Your task to perform on an android device: Go to internet settings Image 0: 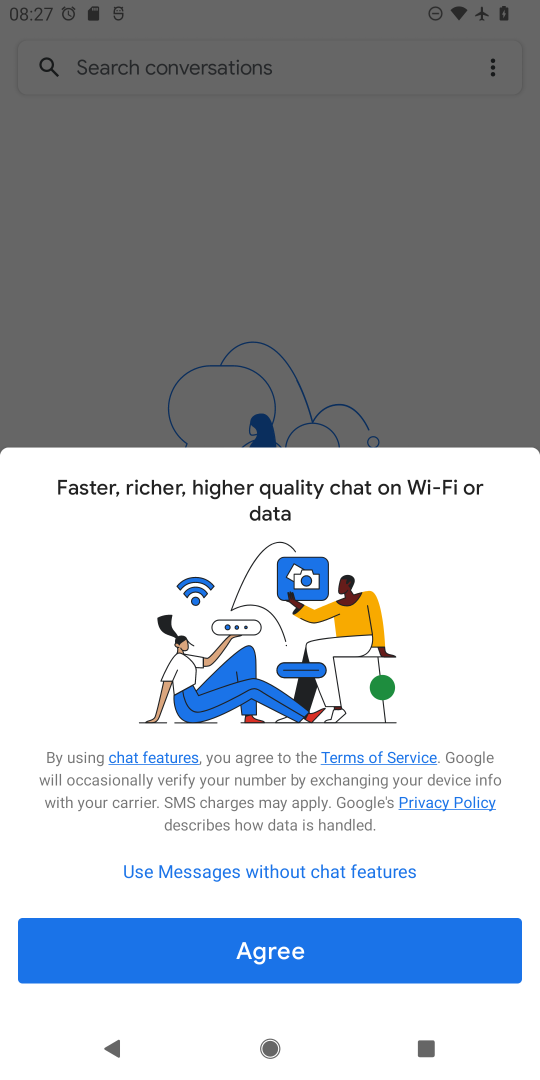
Step 0: press home button
Your task to perform on an android device: Go to internet settings Image 1: 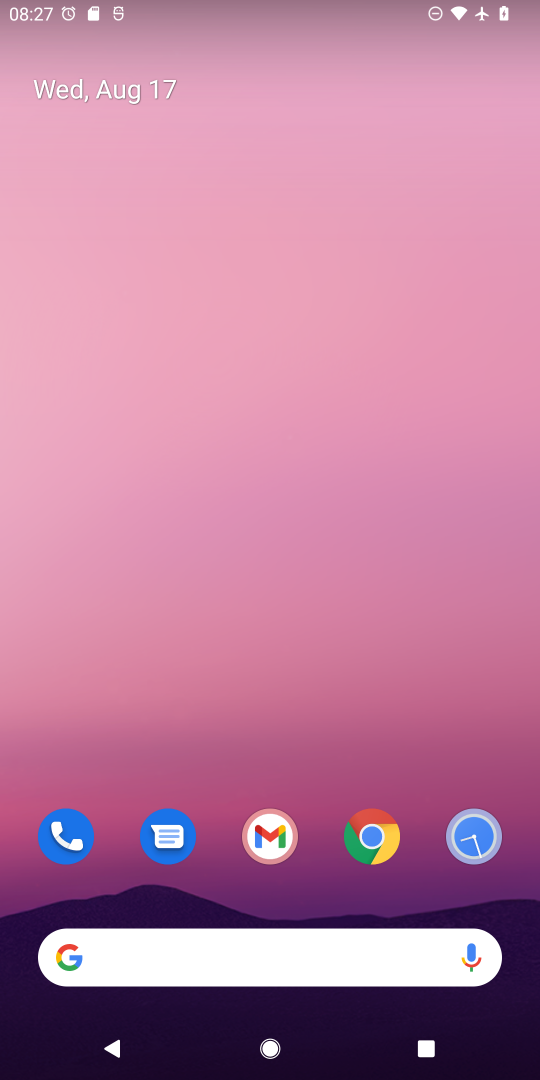
Step 1: drag from (276, 958) to (312, 378)
Your task to perform on an android device: Go to internet settings Image 2: 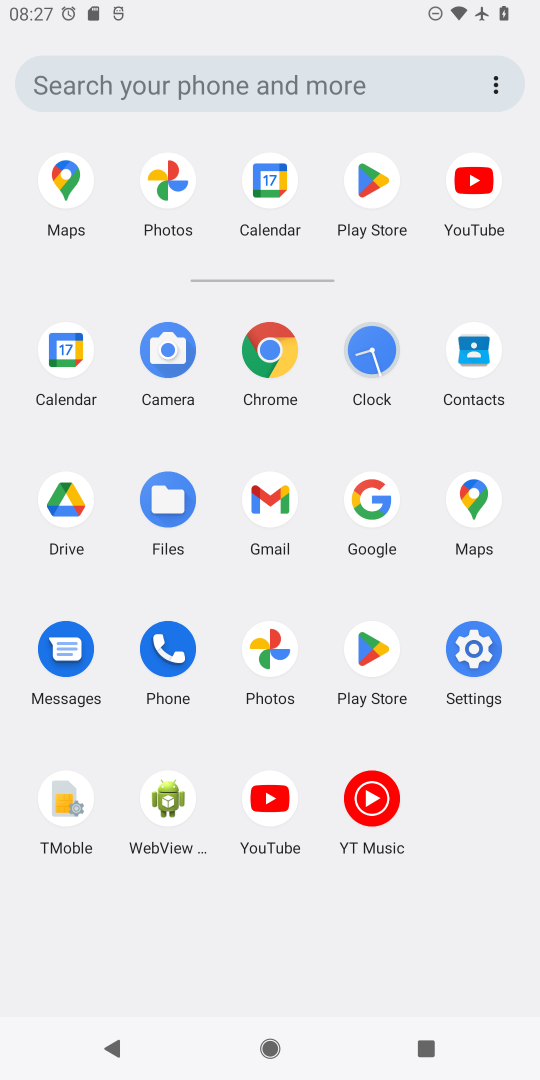
Step 2: click (467, 635)
Your task to perform on an android device: Go to internet settings Image 3: 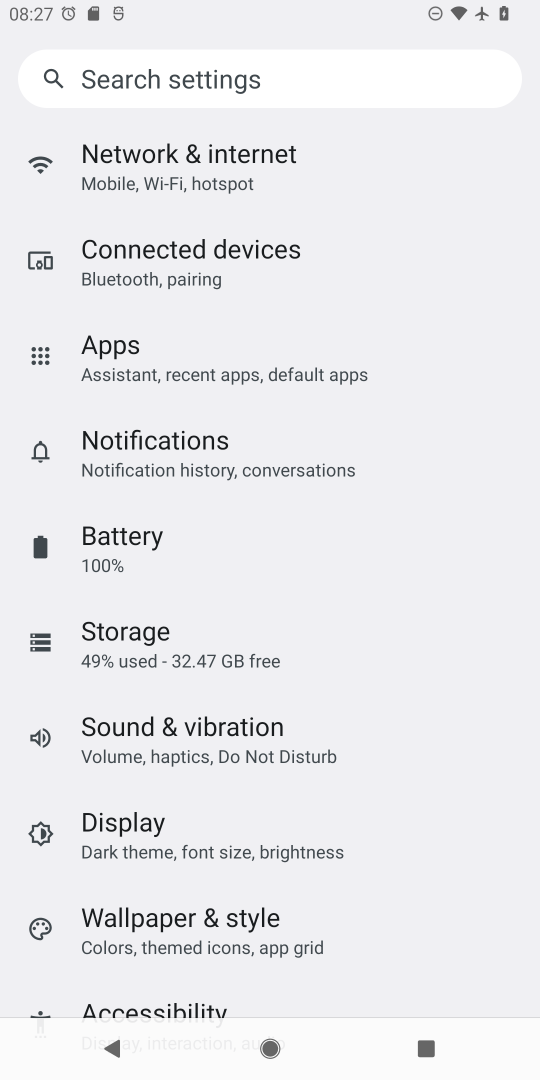
Step 3: click (199, 168)
Your task to perform on an android device: Go to internet settings Image 4: 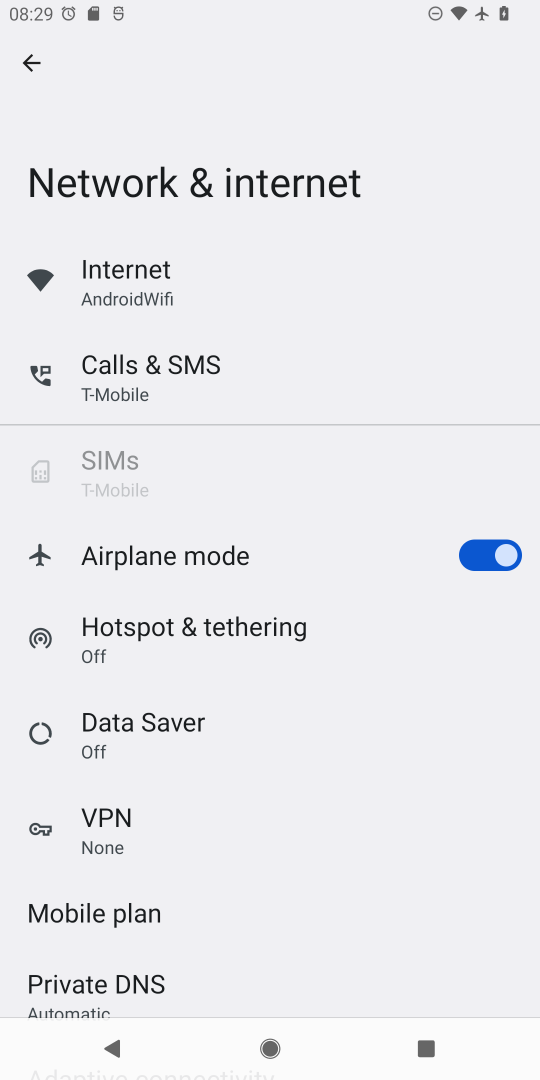
Step 4: task complete